Your task to perform on an android device: Open Chrome and go to settings Image 0: 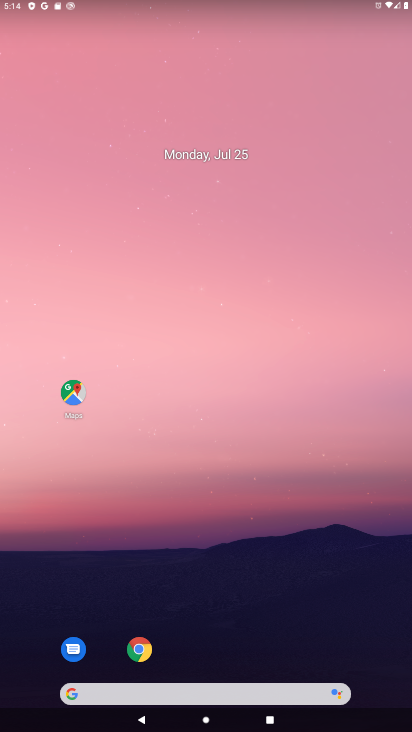
Step 0: drag from (274, 650) to (270, 21)
Your task to perform on an android device: Open Chrome and go to settings Image 1: 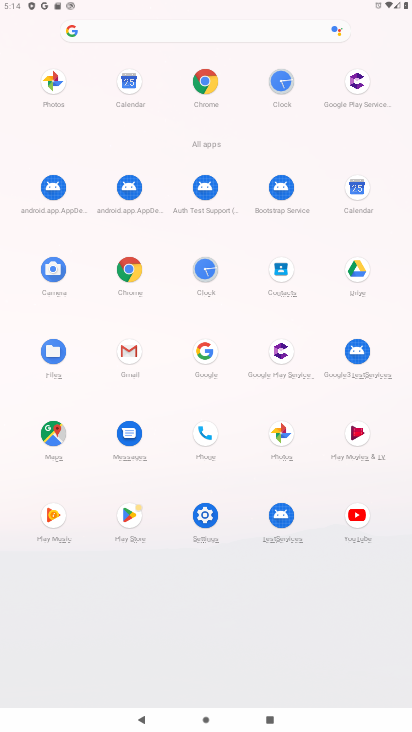
Step 1: click (122, 259)
Your task to perform on an android device: Open Chrome and go to settings Image 2: 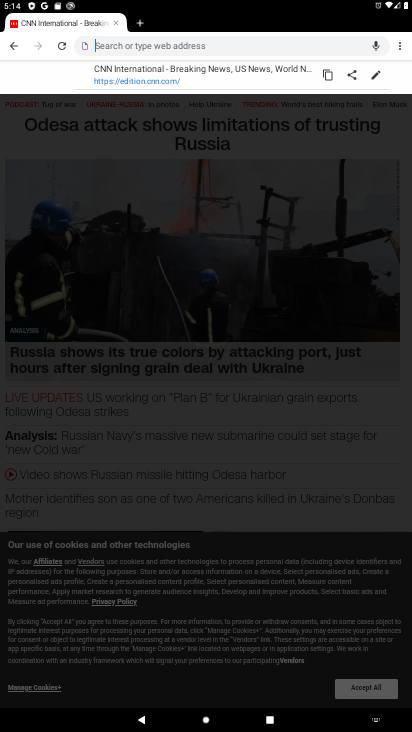
Step 2: task complete